Your task to perform on an android device: clear history in the chrome app Image 0: 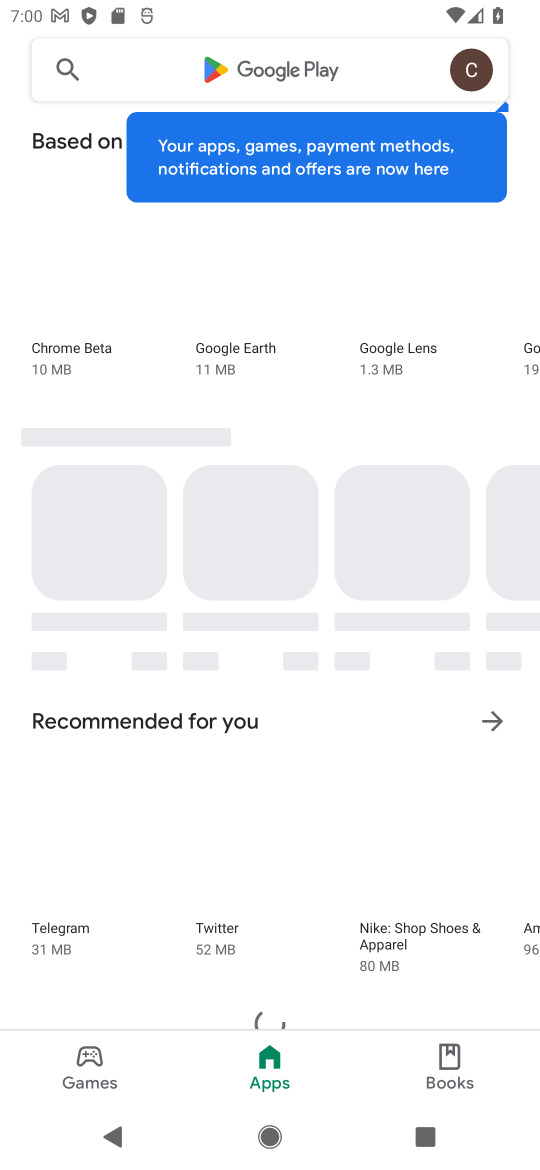
Step 0: press home button
Your task to perform on an android device: clear history in the chrome app Image 1: 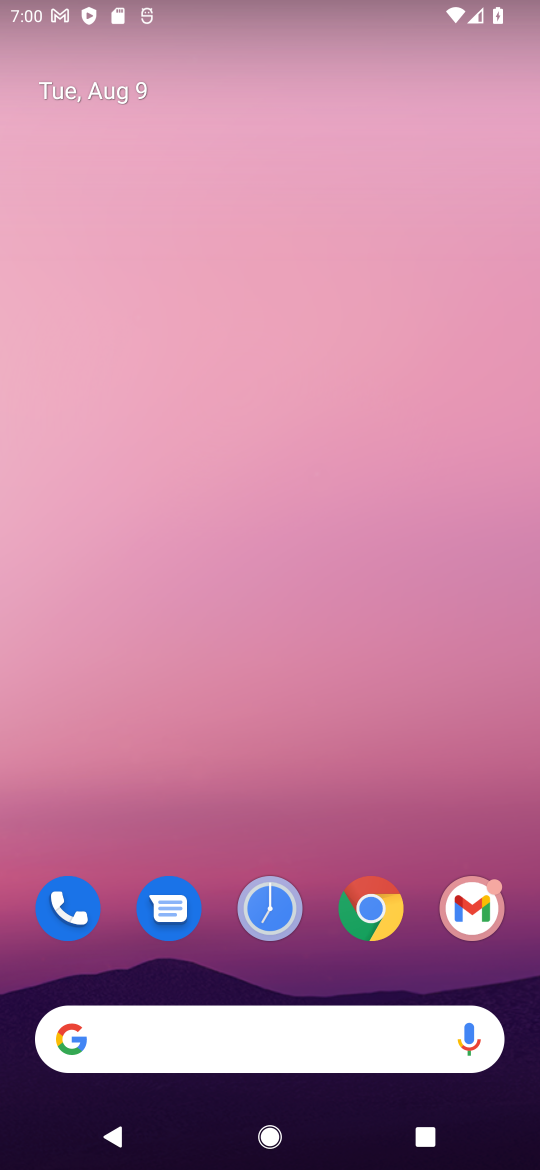
Step 1: click (368, 914)
Your task to perform on an android device: clear history in the chrome app Image 2: 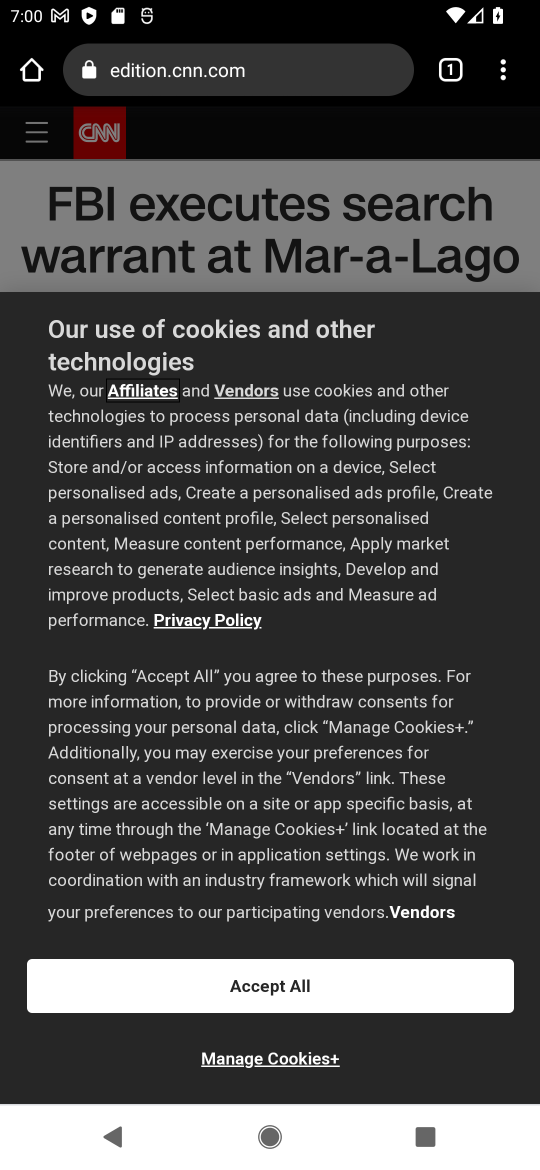
Step 2: click (506, 76)
Your task to perform on an android device: clear history in the chrome app Image 3: 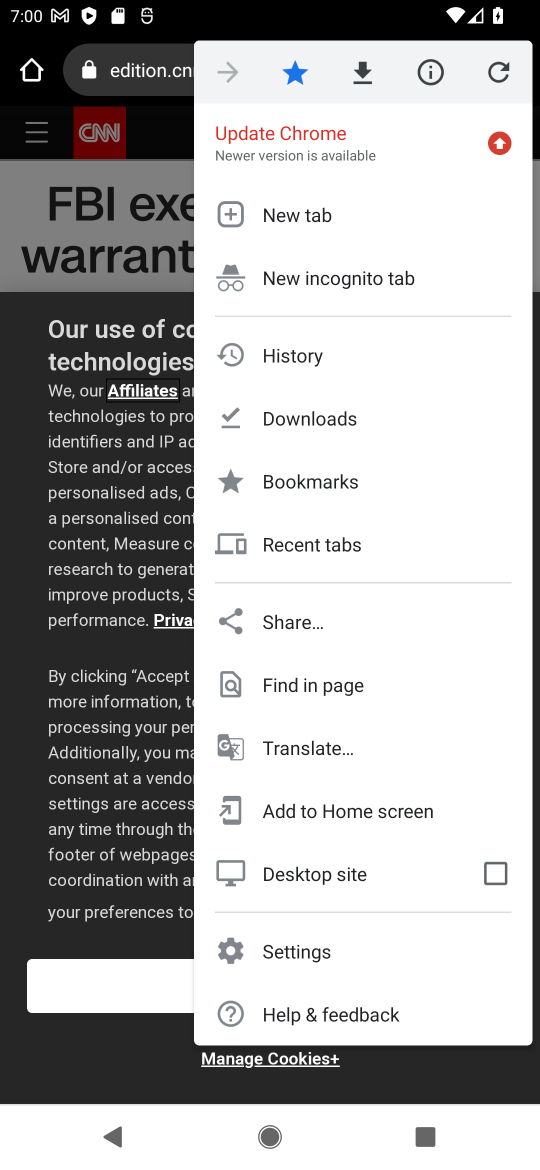
Step 3: click (293, 352)
Your task to perform on an android device: clear history in the chrome app Image 4: 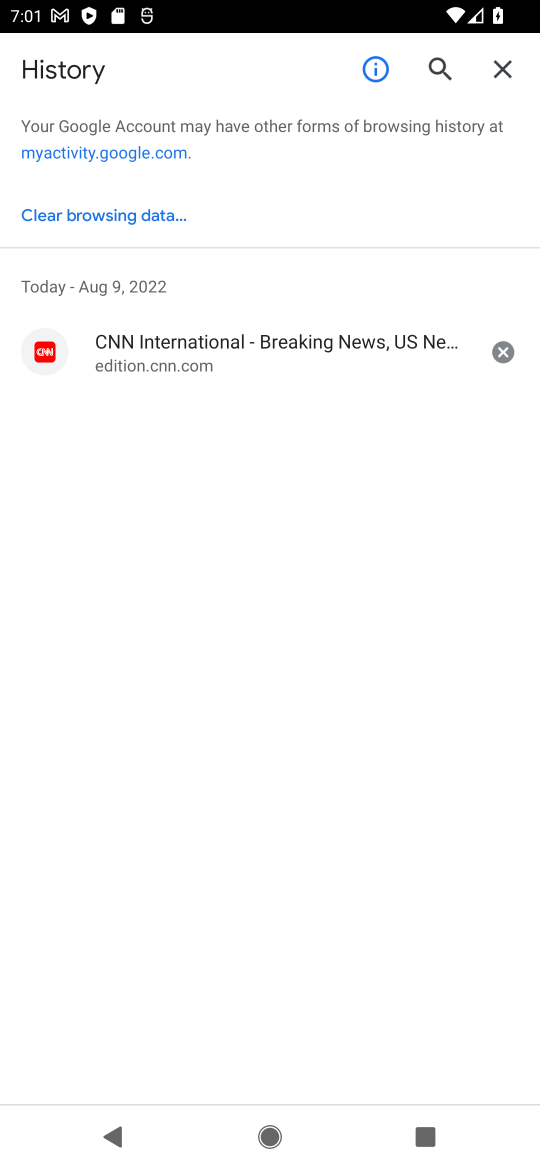
Step 4: click (96, 213)
Your task to perform on an android device: clear history in the chrome app Image 5: 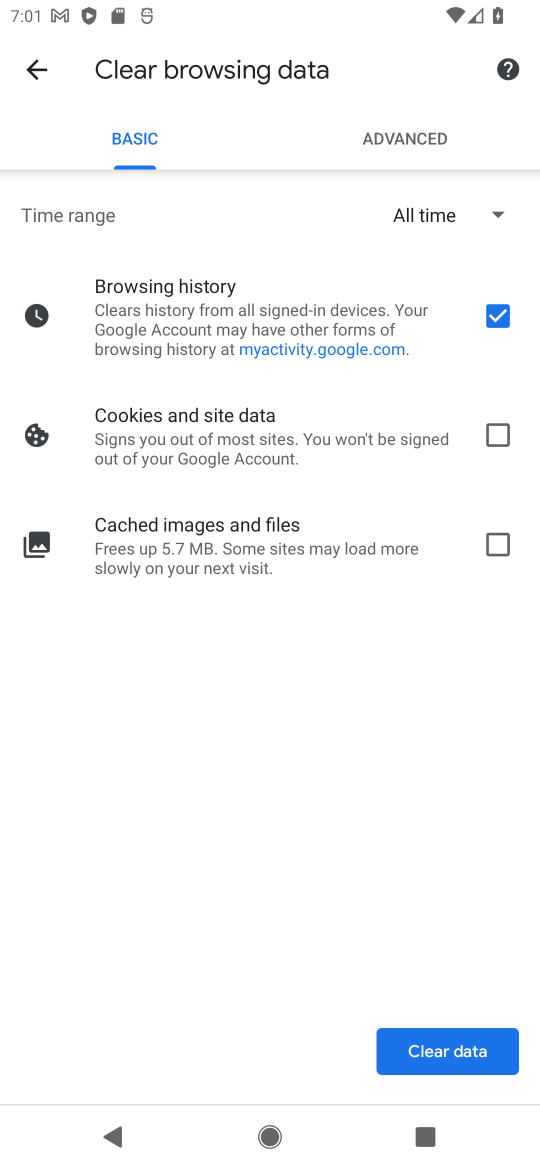
Step 5: click (452, 1053)
Your task to perform on an android device: clear history in the chrome app Image 6: 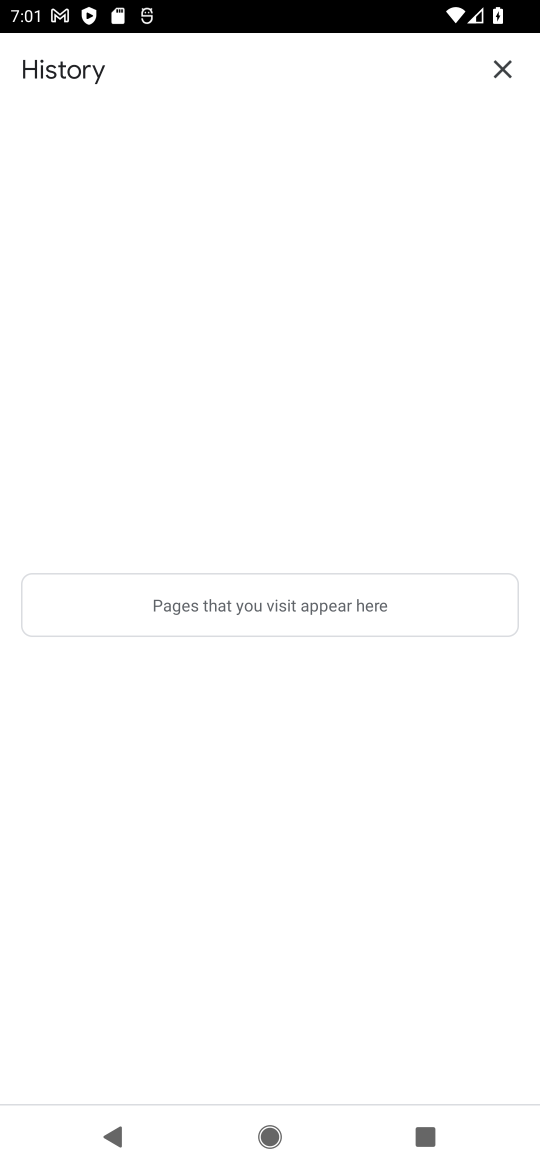
Step 6: task complete